Your task to perform on an android device: turn off translation in the chrome app Image 0: 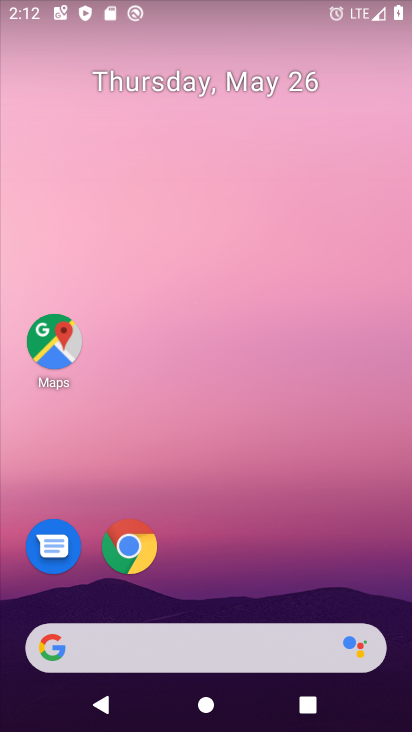
Step 0: click (127, 538)
Your task to perform on an android device: turn off translation in the chrome app Image 1: 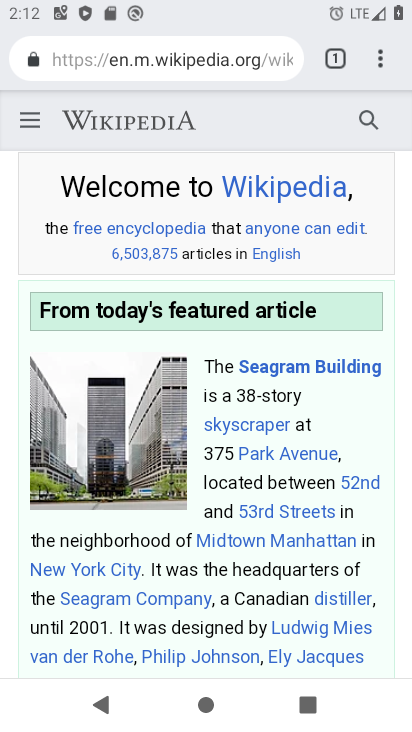
Step 1: click (372, 68)
Your task to perform on an android device: turn off translation in the chrome app Image 2: 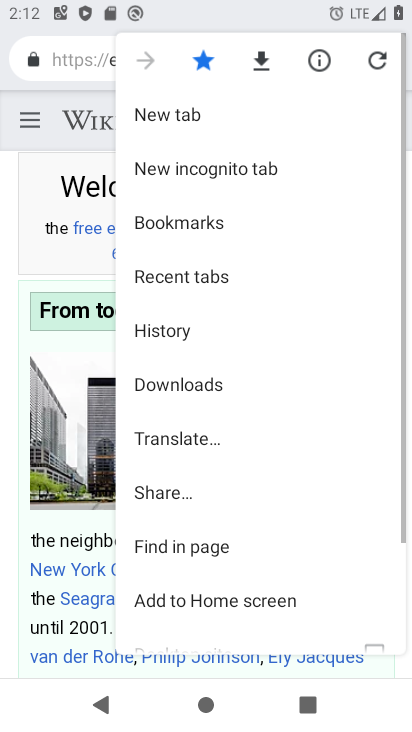
Step 2: drag from (176, 533) to (249, 134)
Your task to perform on an android device: turn off translation in the chrome app Image 3: 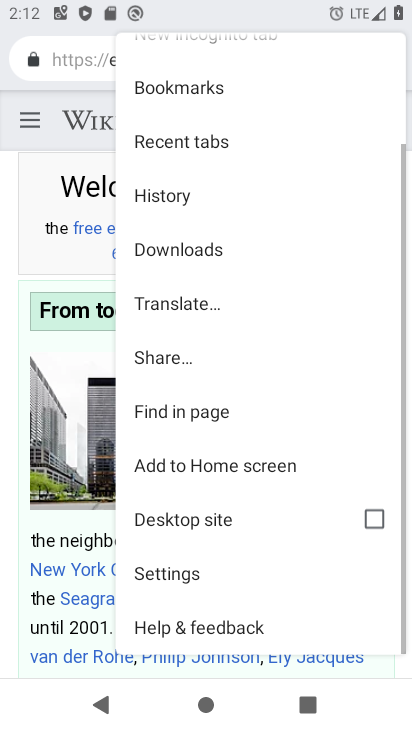
Step 3: click (196, 571)
Your task to perform on an android device: turn off translation in the chrome app Image 4: 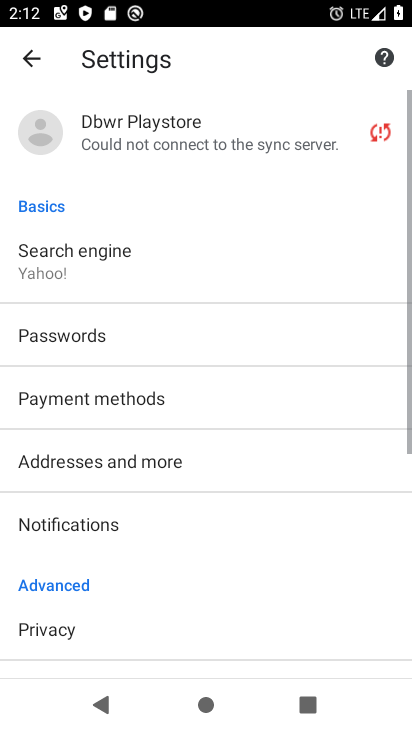
Step 4: drag from (144, 608) to (237, 153)
Your task to perform on an android device: turn off translation in the chrome app Image 5: 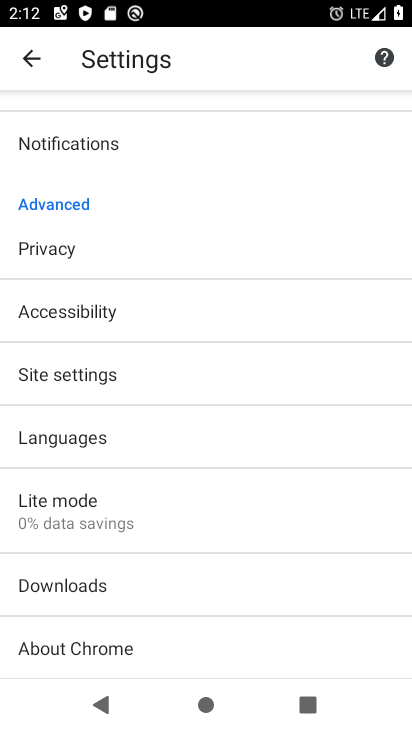
Step 5: click (80, 452)
Your task to perform on an android device: turn off translation in the chrome app Image 6: 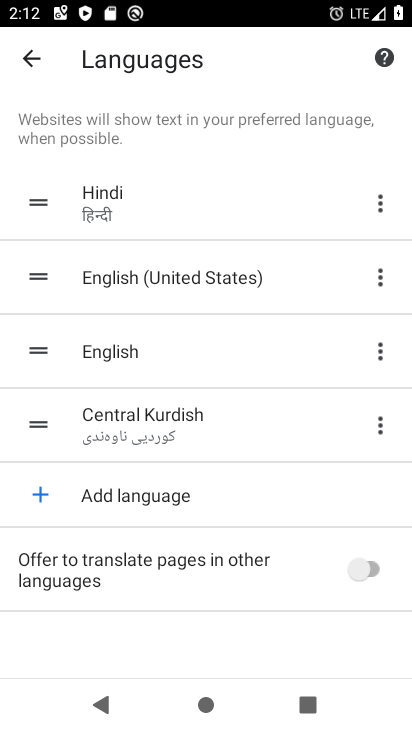
Step 6: task complete